Your task to perform on an android device: turn off notifications settings in the gmail app Image 0: 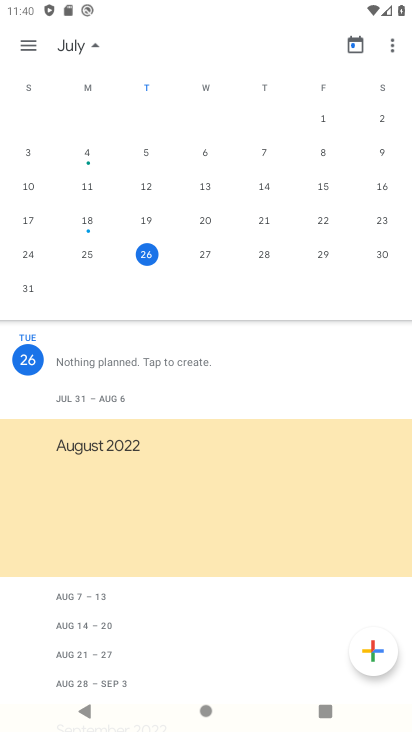
Step 0: press home button
Your task to perform on an android device: turn off notifications settings in the gmail app Image 1: 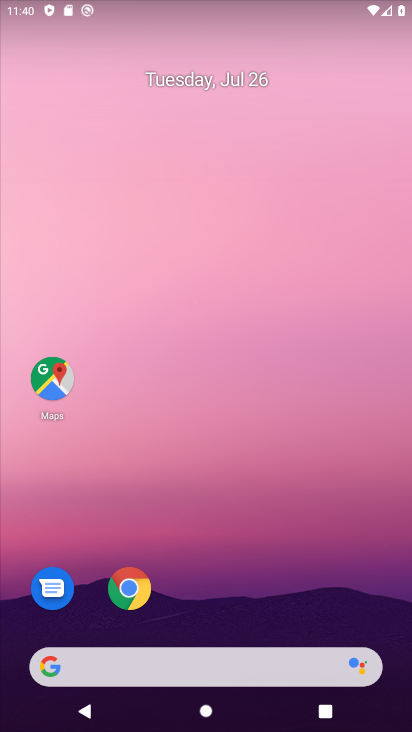
Step 1: drag from (48, 677) to (327, 143)
Your task to perform on an android device: turn off notifications settings in the gmail app Image 2: 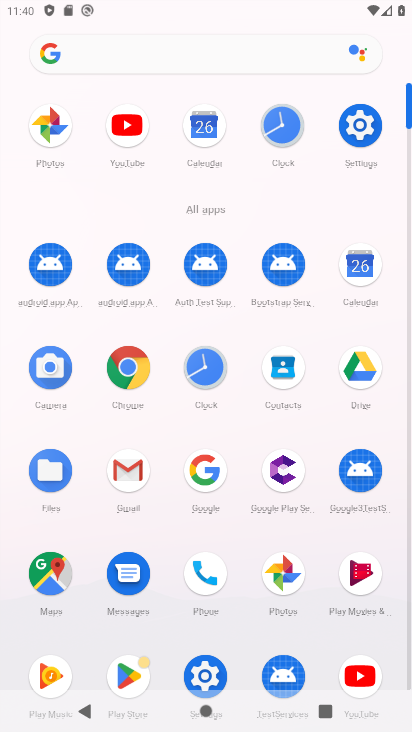
Step 2: click (134, 486)
Your task to perform on an android device: turn off notifications settings in the gmail app Image 3: 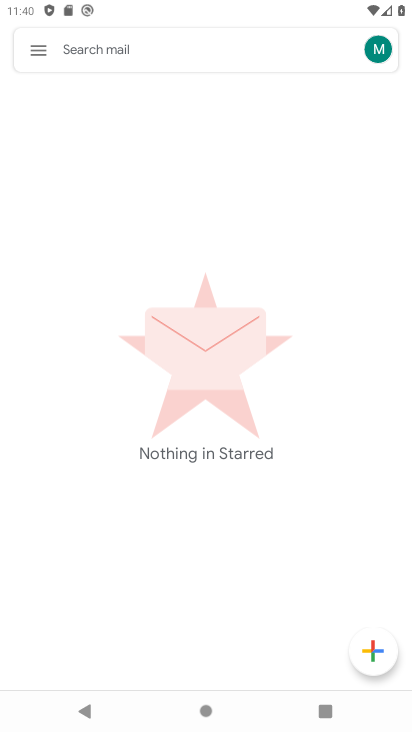
Step 3: click (26, 48)
Your task to perform on an android device: turn off notifications settings in the gmail app Image 4: 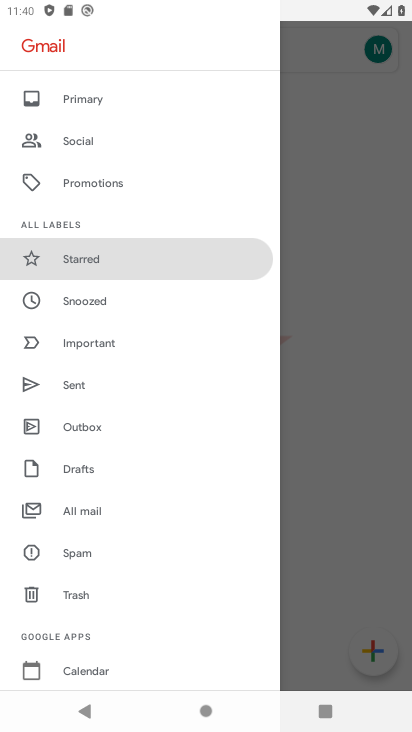
Step 4: drag from (167, 458) to (178, 373)
Your task to perform on an android device: turn off notifications settings in the gmail app Image 5: 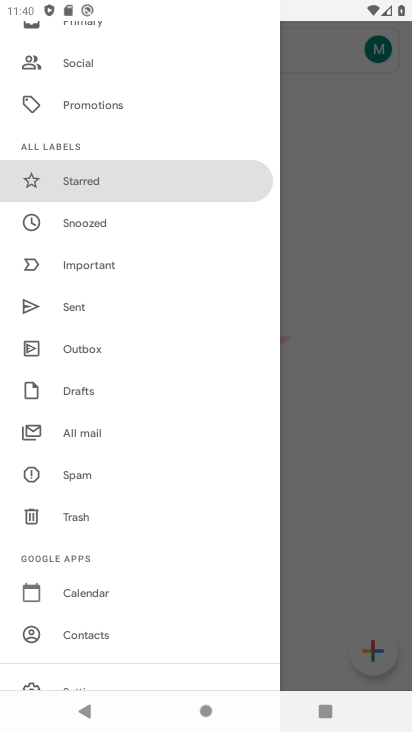
Step 5: drag from (151, 647) to (207, 349)
Your task to perform on an android device: turn off notifications settings in the gmail app Image 6: 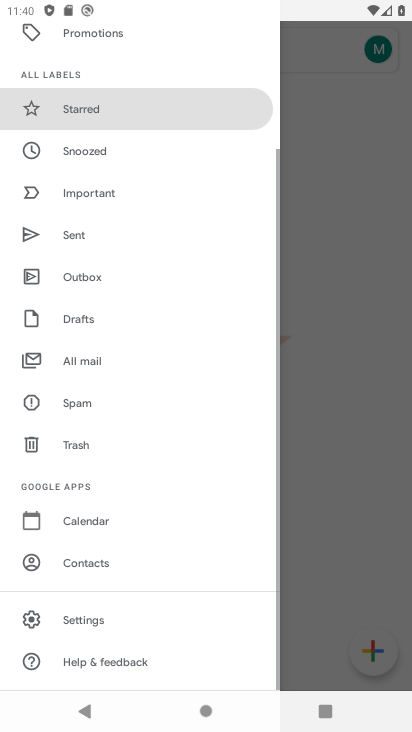
Step 6: click (86, 621)
Your task to perform on an android device: turn off notifications settings in the gmail app Image 7: 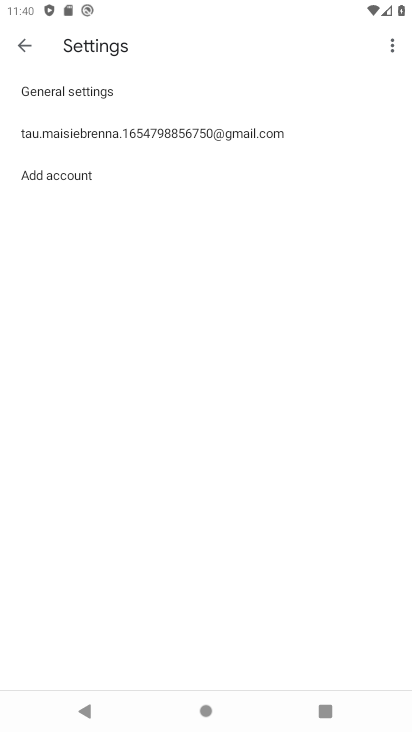
Step 7: click (108, 134)
Your task to perform on an android device: turn off notifications settings in the gmail app Image 8: 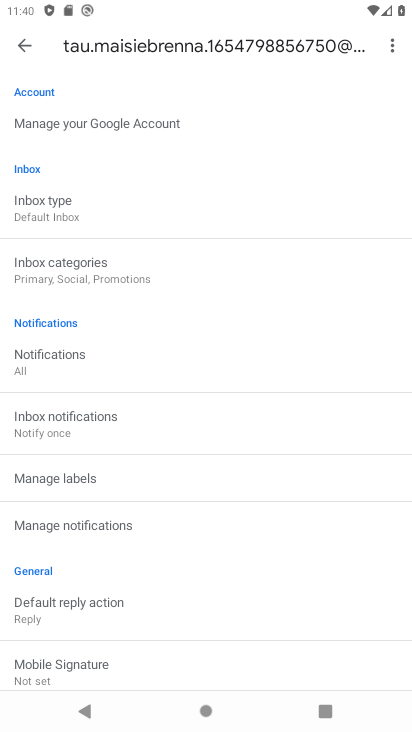
Step 8: click (88, 354)
Your task to perform on an android device: turn off notifications settings in the gmail app Image 9: 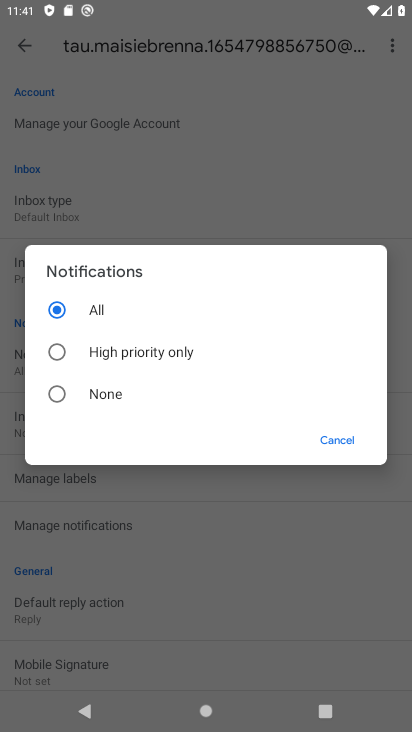
Step 9: task complete